Your task to perform on an android device: Open the calendar and show me this week's events? Image 0: 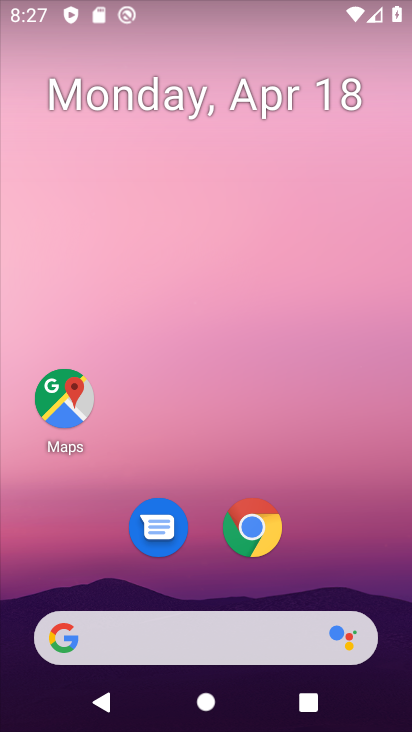
Step 0: drag from (210, 525) to (209, 65)
Your task to perform on an android device: Open the calendar and show me this week's events? Image 1: 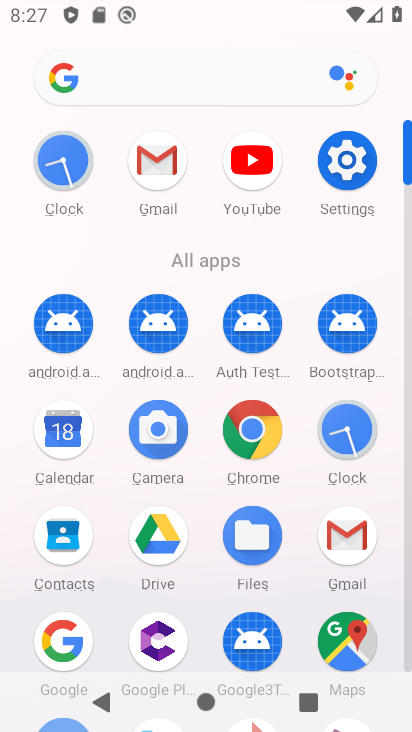
Step 1: click (77, 413)
Your task to perform on an android device: Open the calendar and show me this week's events? Image 2: 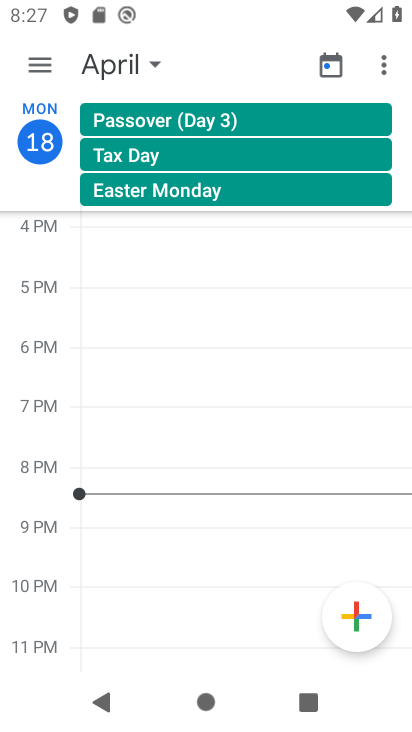
Step 2: click (40, 67)
Your task to perform on an android device: Open the calendar and show me this week's events? Image 3: 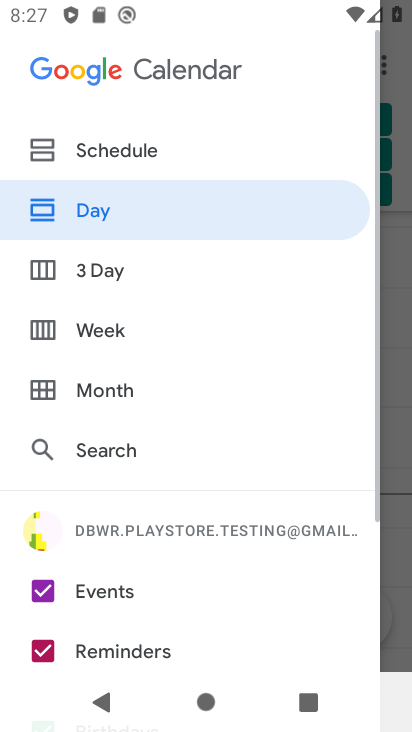
Step 3: click (117, 327)
Your task to perform on an android device: Open the calendar and show me this week's events? Image 4: 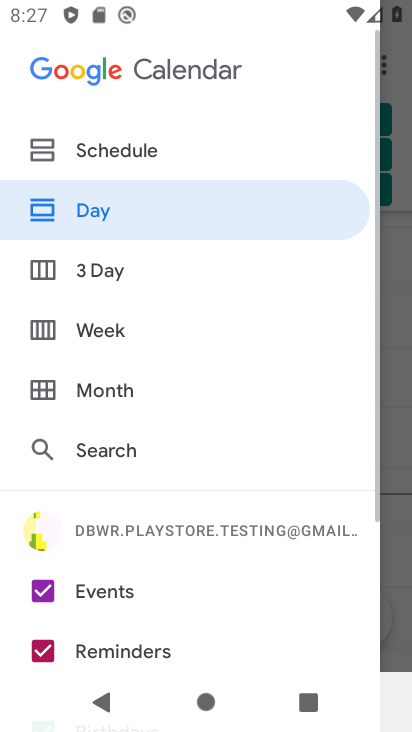
Step 4: click (117, 327)
Your task to perform on an android device: Open the calendar and show me this week's events? Image 5: 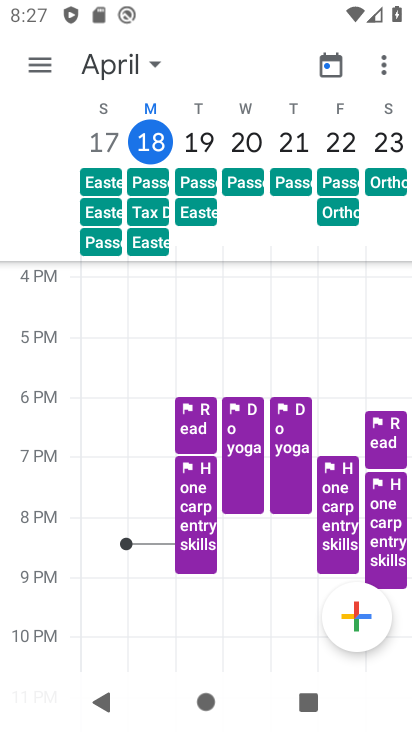
Step 5: click (34, 60)
Your task to perform on an android device: Open the calendar and show me this week's events? Image 6: 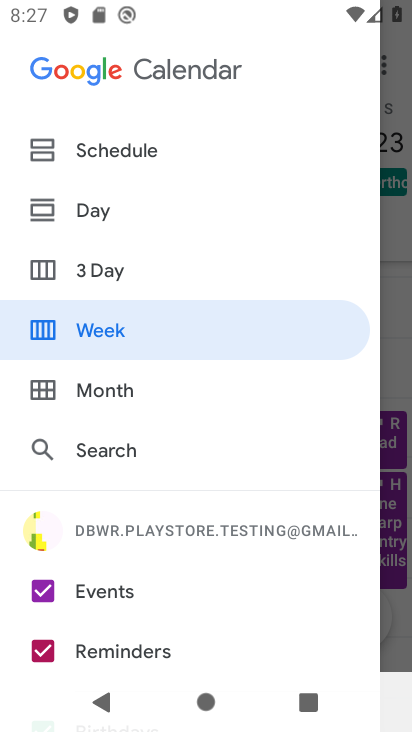
Step 6: drag from (178, 623) to (211, 261)
Your task to perform on an android device: Open the calendar and show me this week's events? Image 7: 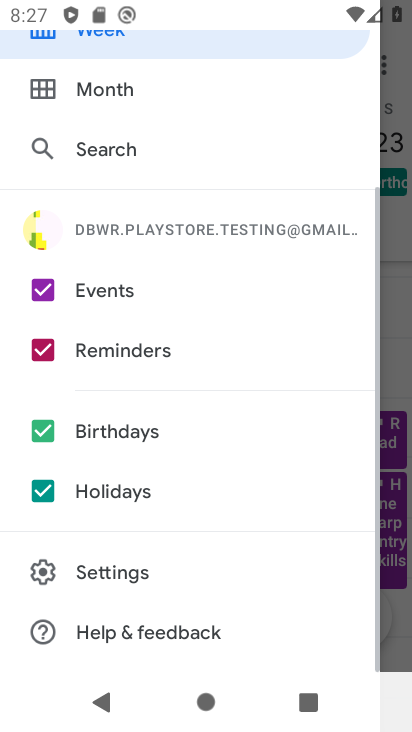
Step 7: click (43, 495)
Your task to perform on an android device: Open the calendar and show me this week's events? Image 8: 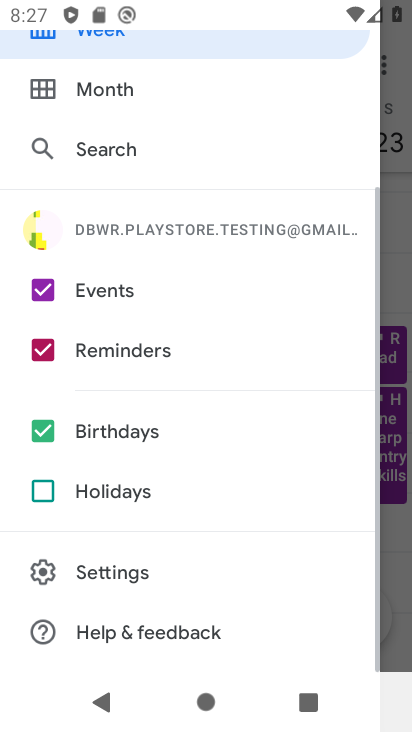
Step 8: click (41, 439)
Your task to perform on an android device: Open the calendar and show me this week's events? Image 9: 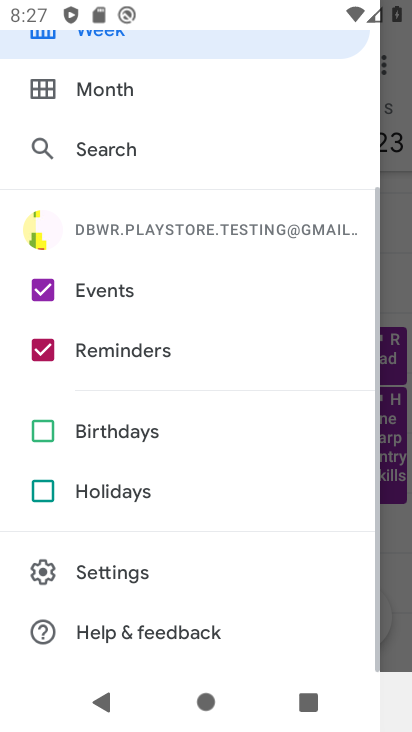
Step 9: click (46, 345)
Your task to perform on an android device: Open the calendar and show me this week's events? Image 10: 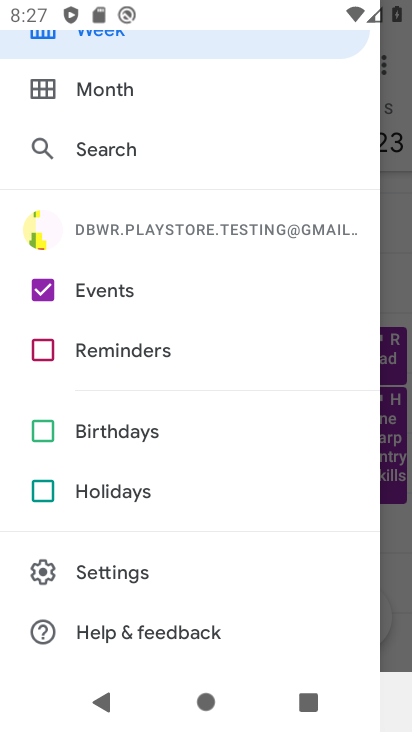
Step 10: click (391, 244)
Your task to perform on an android device: Open the calendar and show me this week's events? Image 11: 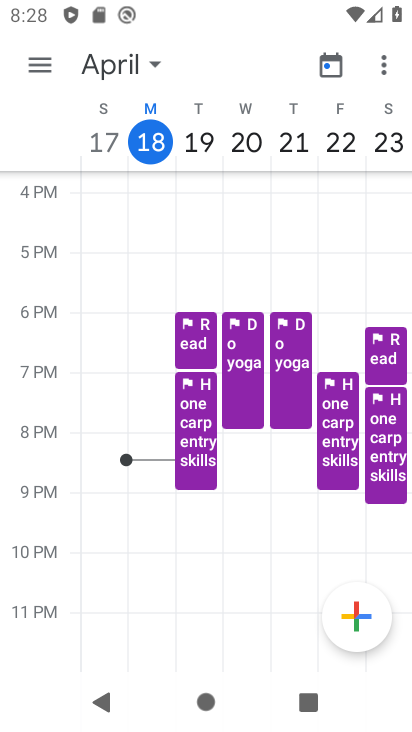
Step 11: click (45, 62)
Your task to perform on an android device: Open the calendar and show me this week's events? Image 12: 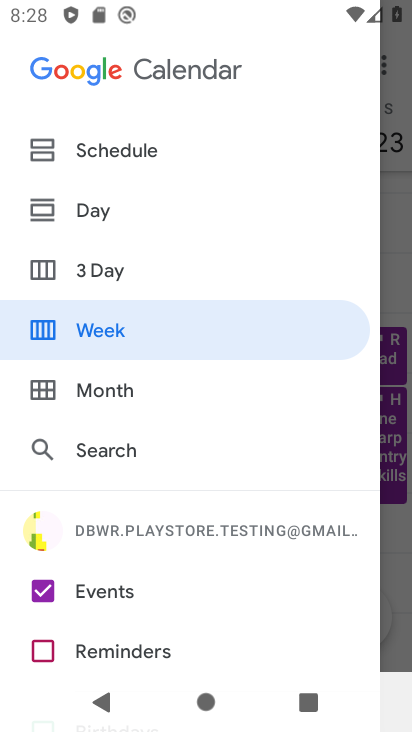
Step 12: drag from (179, 238) to (179, 485)
Your task to perform on an android device: Open the calendar and show me this week's events? Image 13: 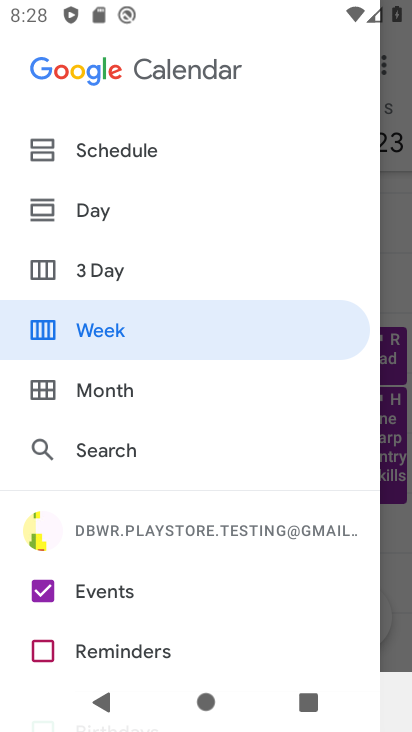
Step 13: click (171, 142)
Your task to perform on an android device: Open the calendar and show me this week's events? Image 14: 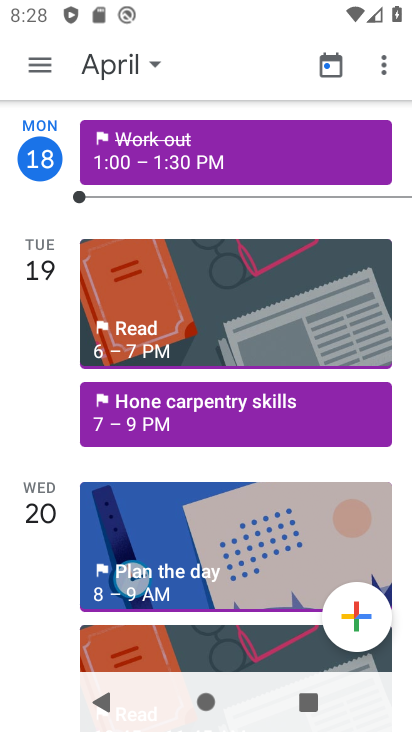
Step 14: task complete